Your task to perform on an android device: Open internet settings Image 0: 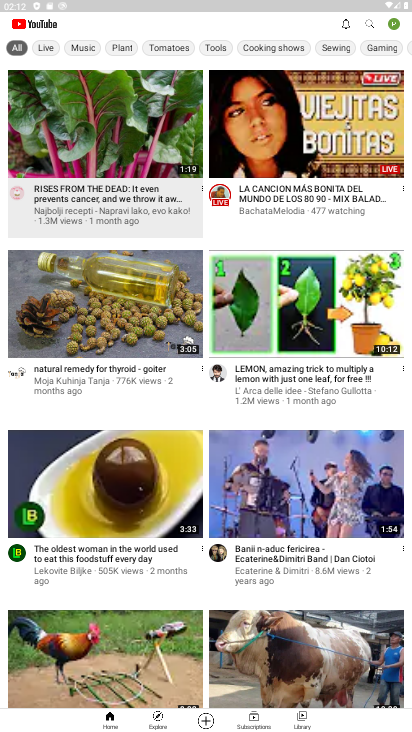
Step 0: press home button
Your task to perform on an android device: Open internet settings Image 1: 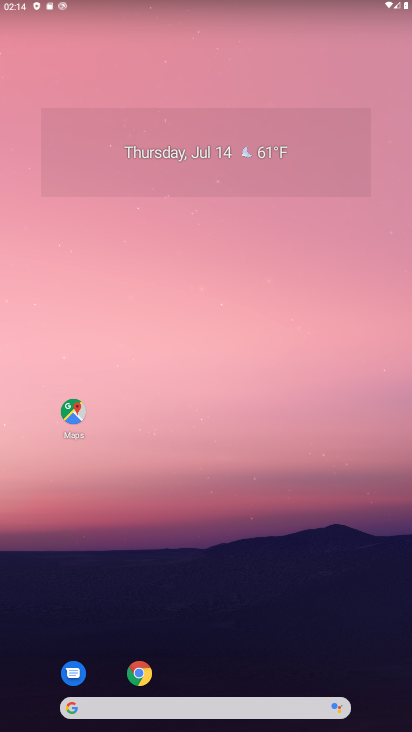
Step 1: drag from (314, 646) to (284, 13)
Your task to perform on an android device: Open internet settings Image 2: 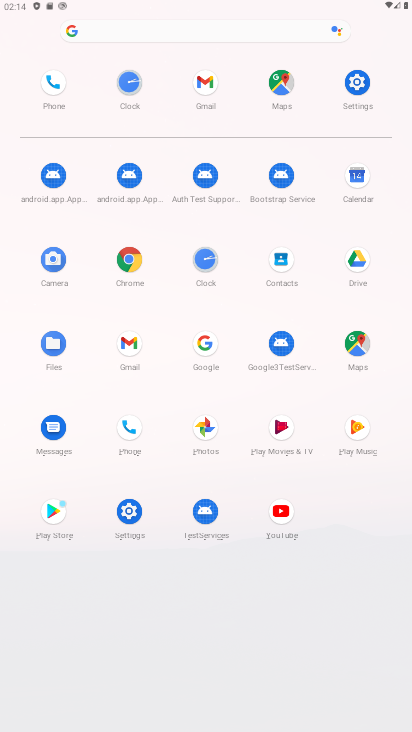
Step 2: click (362, 104)
Your task to perform on an android device: Open internet settings Image 3: 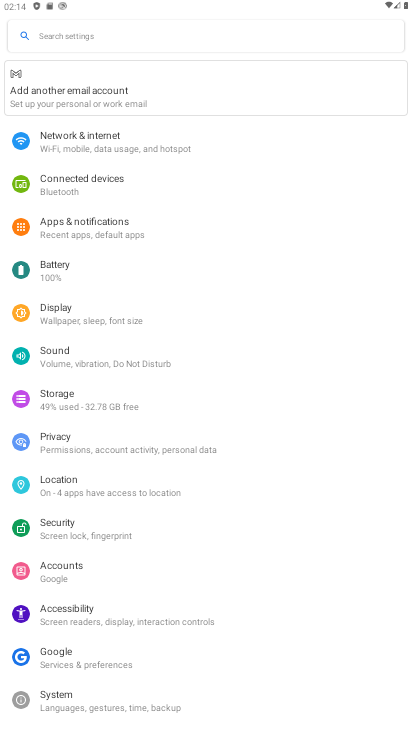
Step 3: click (153, 136)
Your task to perform on an android device: Open internet settings Image 4: 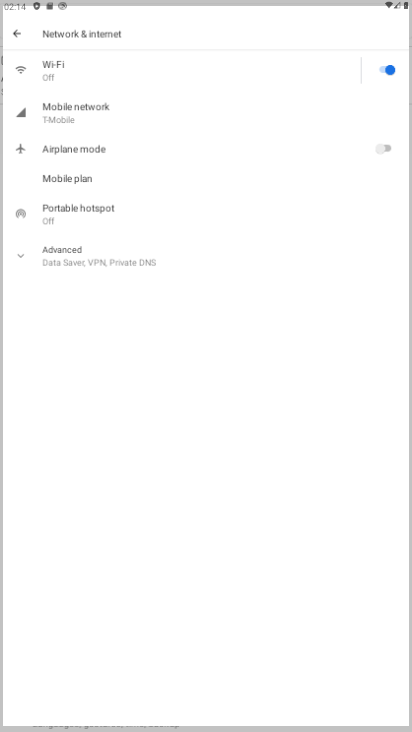
Step 4: task complete